Your task to perform on an android device: toggle airplane mode Image 0: 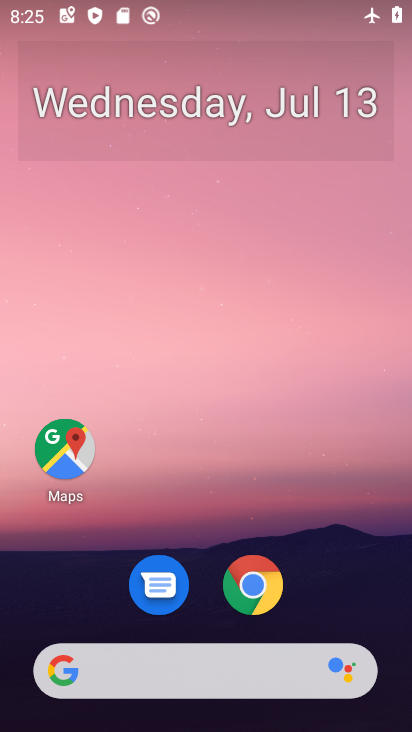
Step 0: drag from (214, 502) to (203, 39)
Your task to perform on an android device: toggle airplane mode Image 1: 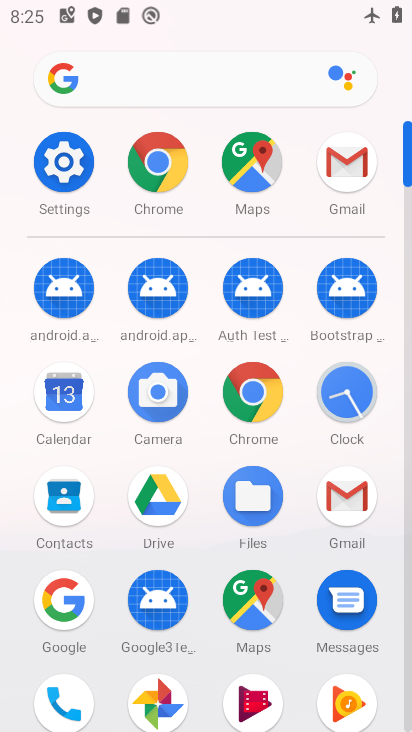
Step 1: click (77, 171)
Your task to perform on an android device: toggle airplane mode Image 2: 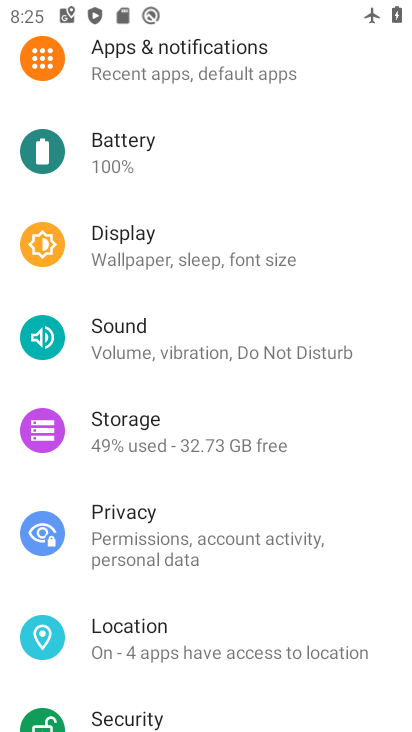
Step 2: drag from (216, 212) to (230, 642)
Your task to perform on an android device: toggle airplane mode Image 3: 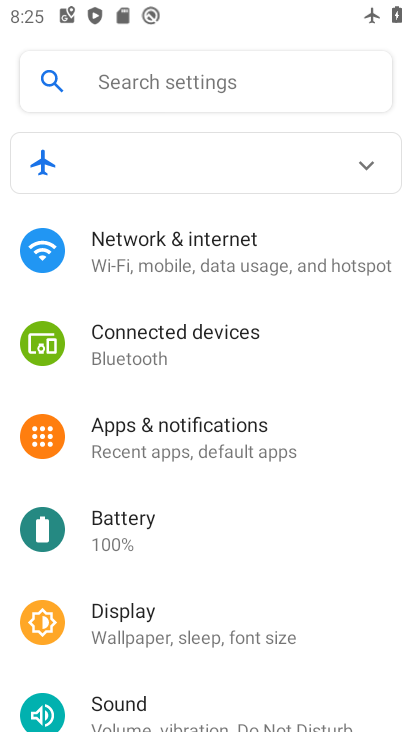
Step 3: click (281, 269)
Your task to perform on an android device: toggle airplane mode Image 4: 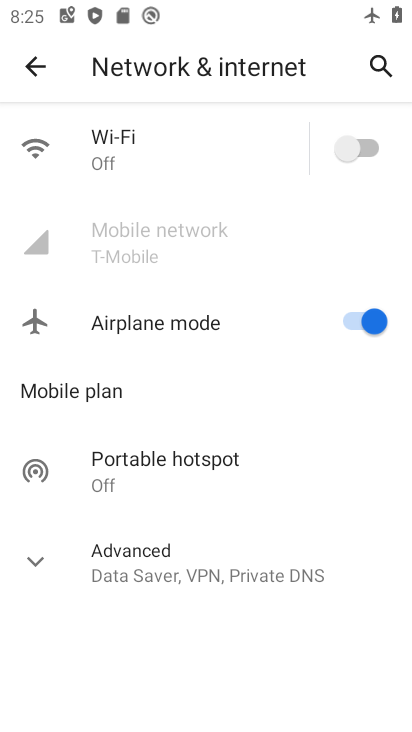
Step 4: click (355, 318)
Your task to perform on an android device: toggle airplane mode Image 5: 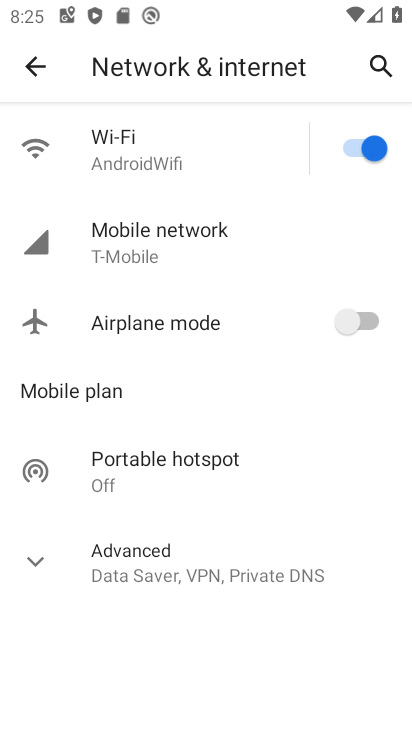
Step 5: task complete